Your task to perform on an android device: Open Android settings Image 0: 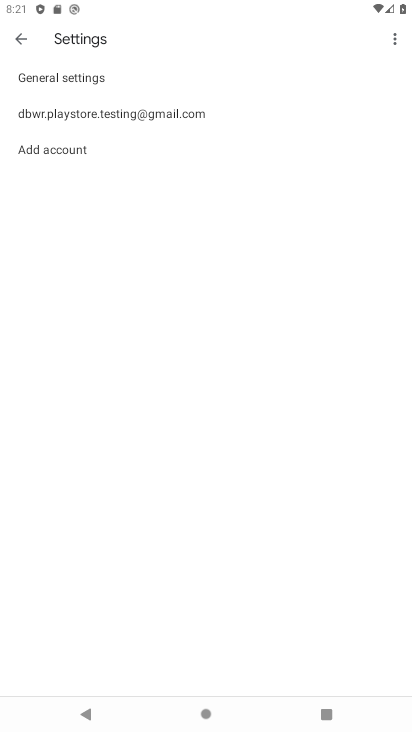
Step 0: press home button
Your task to perform on an android device: Open Android settings Image 1: 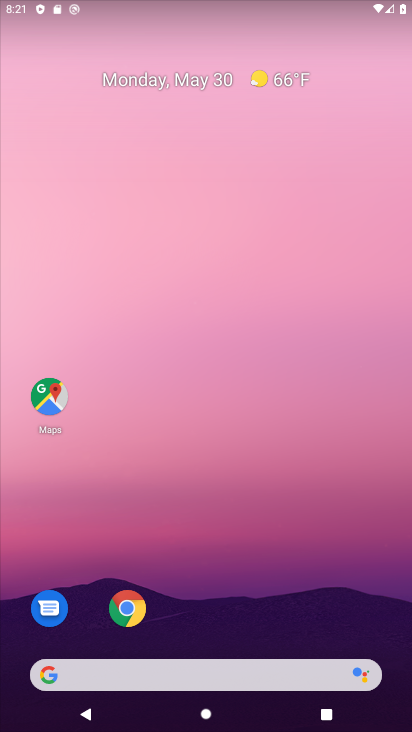
Step 1: drag from (231, 729) to (166, 95)
Your task to perform on an android device: Open Android settings Image 2: 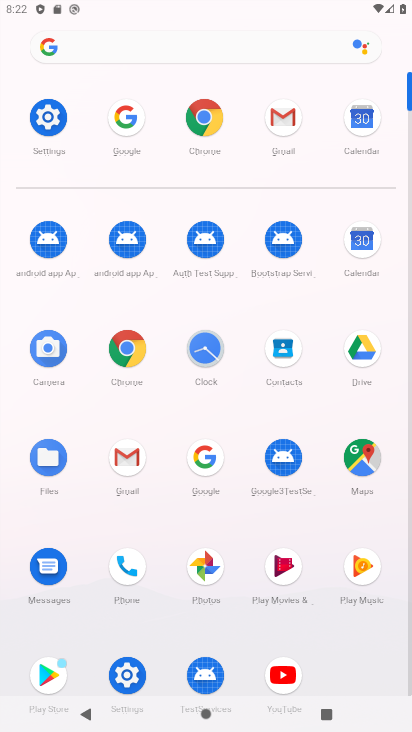
Step 2: click (47, 120)
Your task to perform on an android device: Open Android settings Image 3: 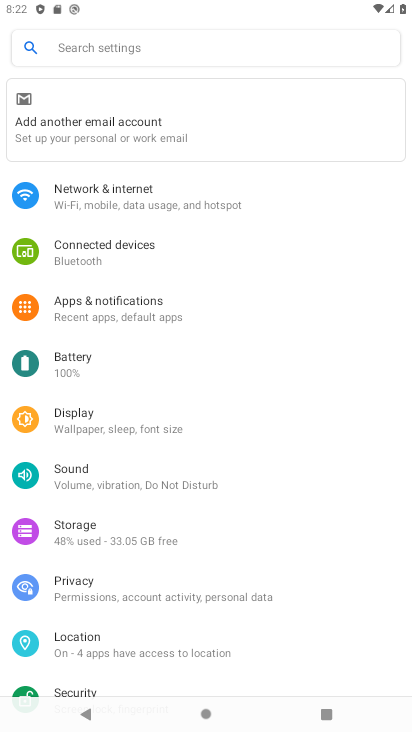
Step 3: task complete